Your task to perform on an android device: turn off location history Image 0: 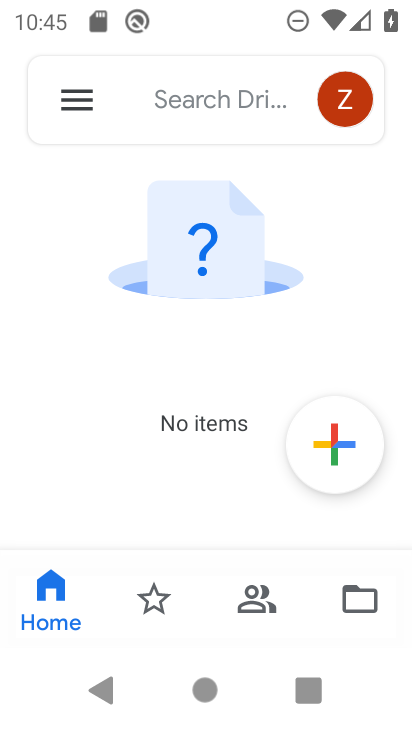
Step 0: press home button
Your task to perform on an android device: turn off location history Image 1: 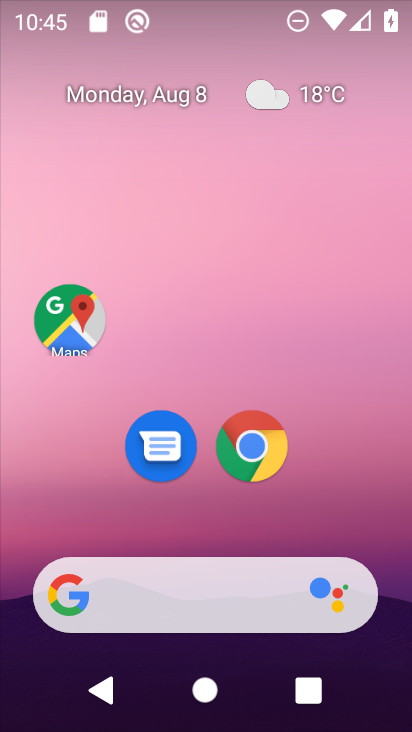
Step 1: click (64, 316)
Your task to perform on an android device: turn off location history Image 2: 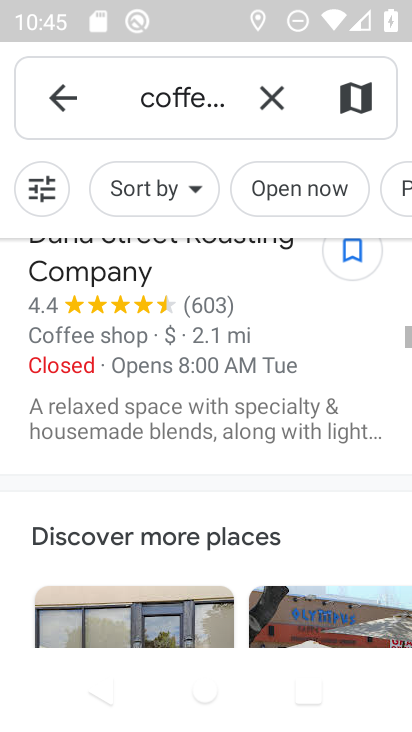
Step 2: click (271, 100)
Your task to perform on an android device: turn off location history Image 3: 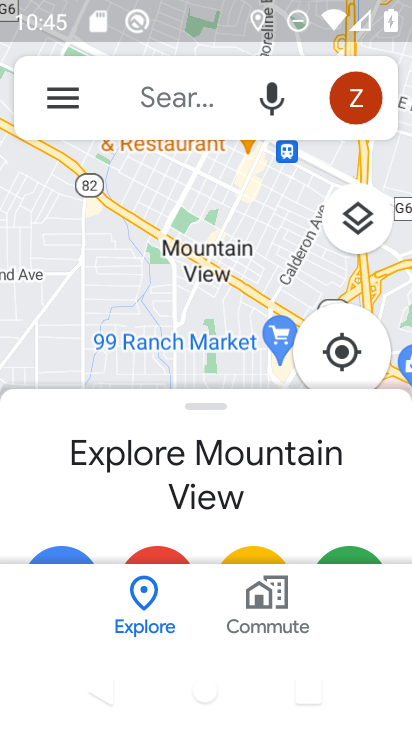
Step 3: click (58, 97)
Your task to perform on an android device: turn off location history Image 4: 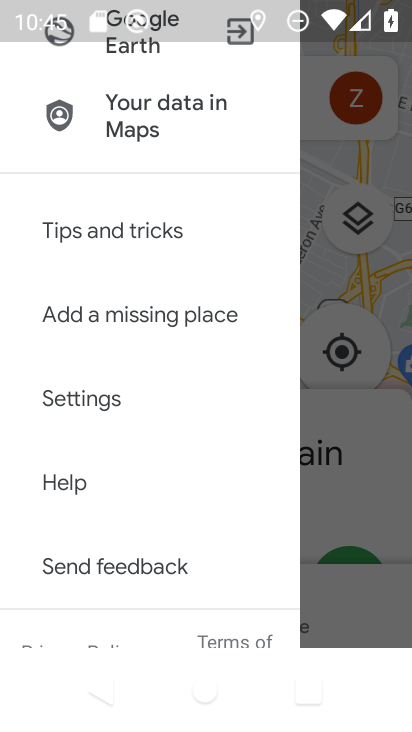
Step 4: click (109, 399)
Your task to perform on an android device: turn off location history Image 5: 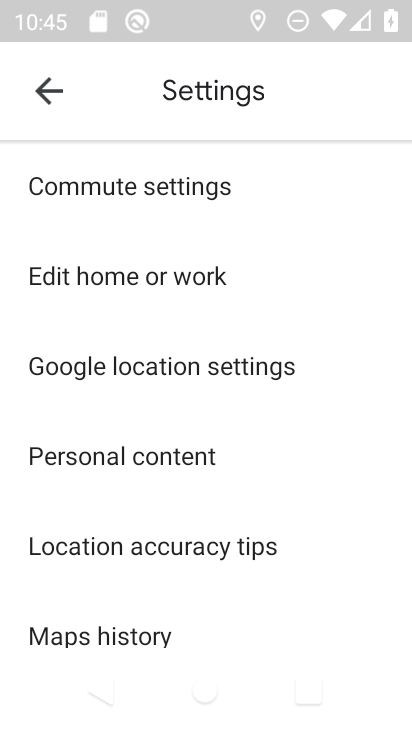
Step 5: click (108, 453)
Your task to perform on an android device: turn off location history Image 6: 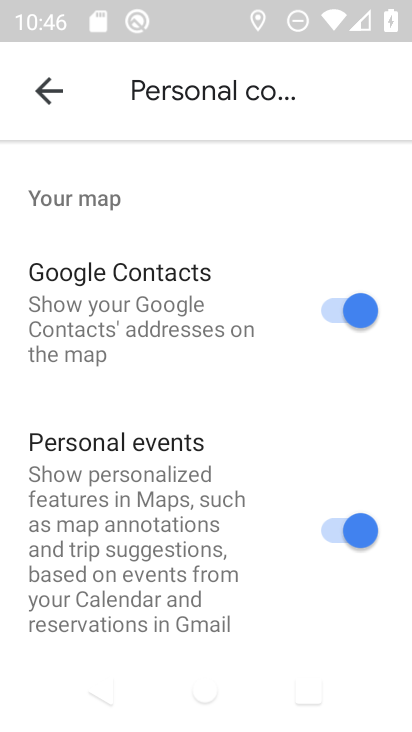
Step 6: task complete